Your task to perform on an android device: Open my contact list Image 0: 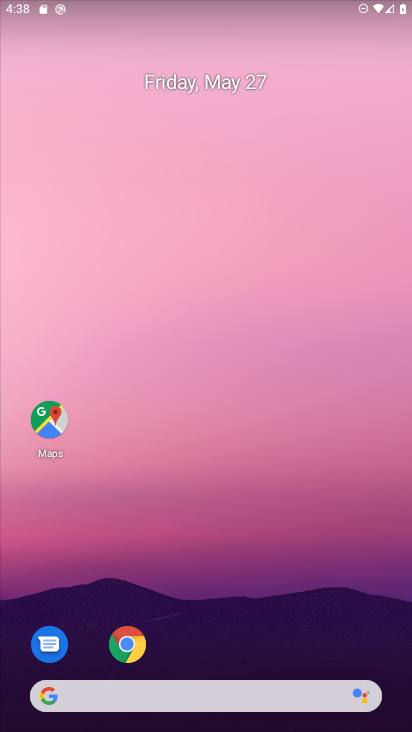
Step 0: drag from (259, 653) to (233, 207)
Your task to perform on an android device: Open my contact list Image 1: 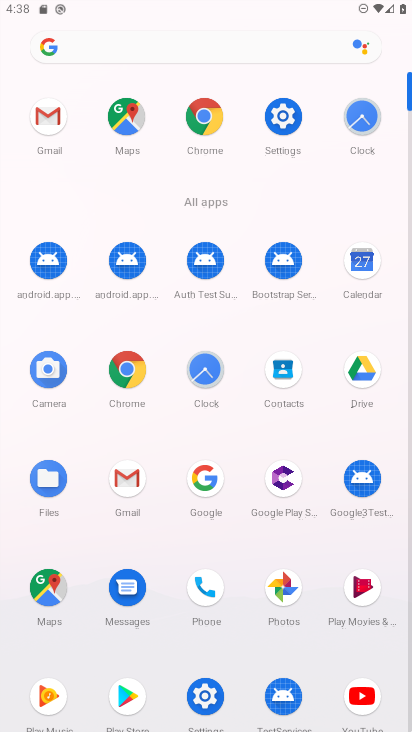
Step 1: click (183, 88)
Your task to perform on an android device: Open my contact list Image 2: 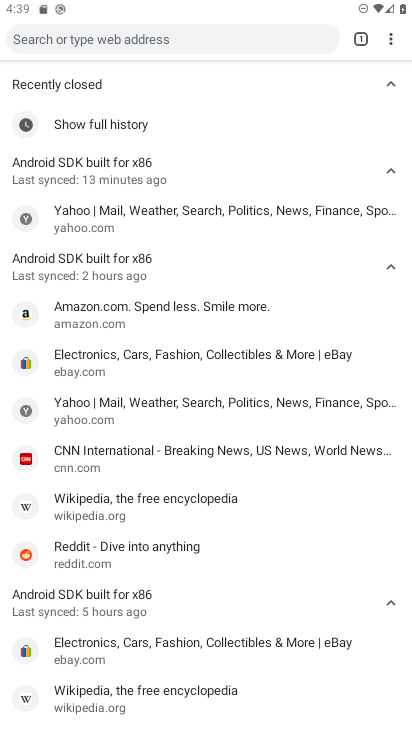
Step 2: press home button
Your task to perform on an android device: Open my contact list Image 3: 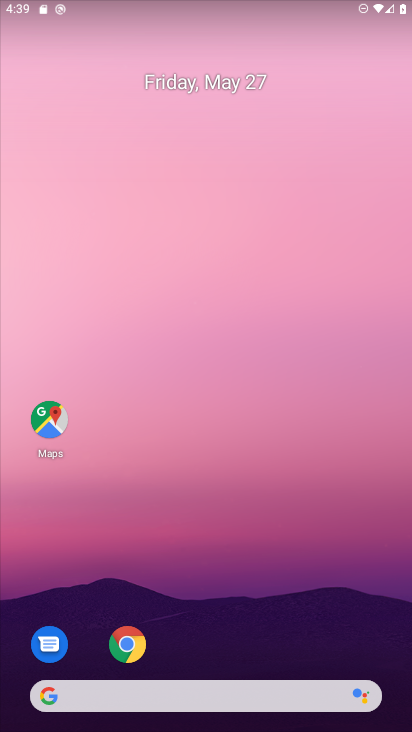
Step 3: drag from (188, 641) to (217, 152)
Your task to perform on an android device: Open my contact list Image 4: 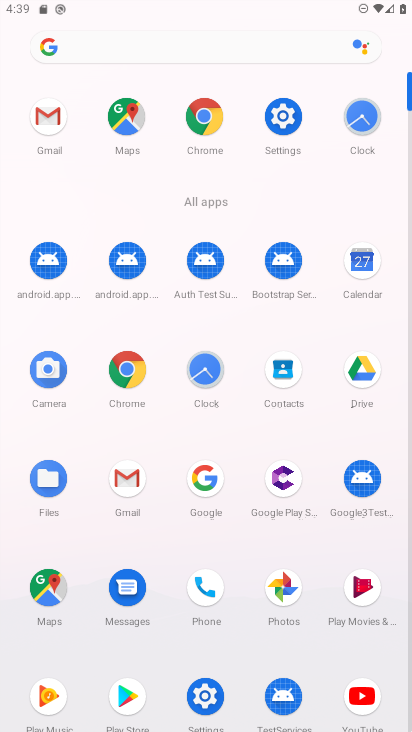
Step 4: click (266, 377)
Your task to perform on an android device: Open my contact list Image 5: 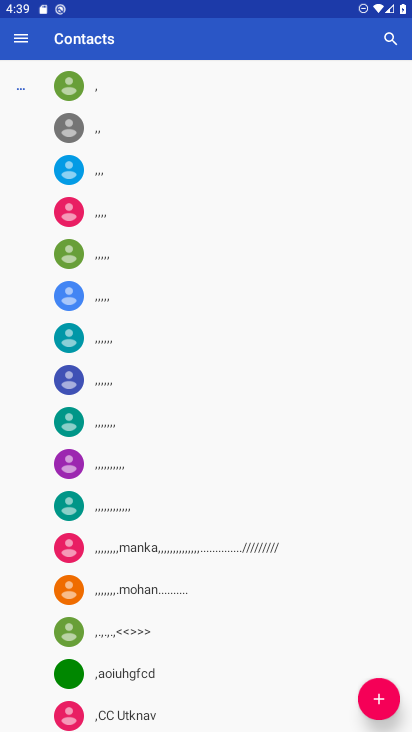
Step 5: task complete